Your task to perform on an android device: Search for Mexican restaurants on Maps Image 0: 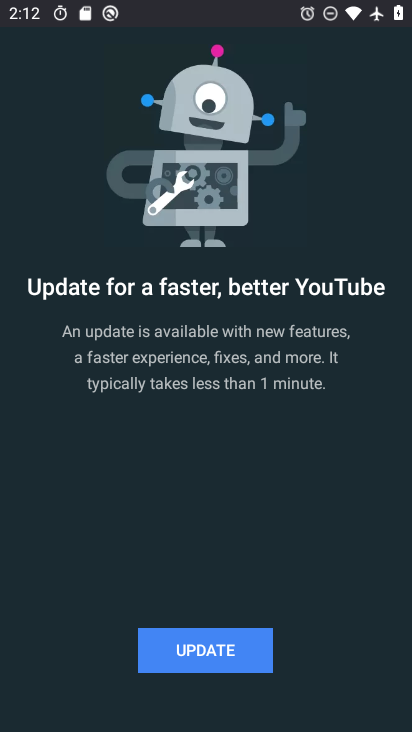
Step 0: press home button
Your task to perform on an android device: Search for Mexican restaurants on Maps Image 1: 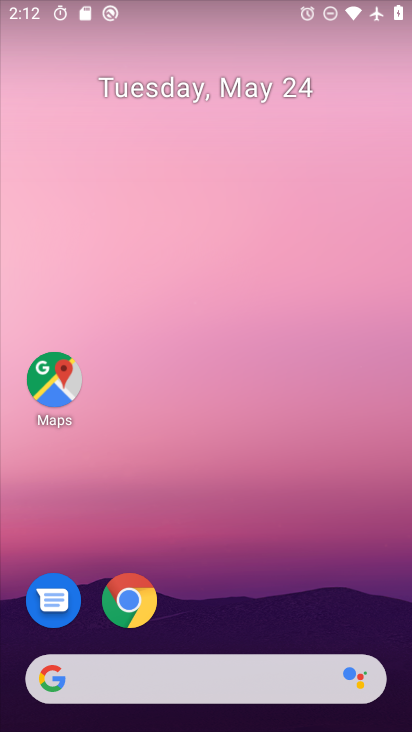
Step 1: click (59, 379)
Your task to perform on an android device: Search for Mexican restaurants on Maps Image 2: 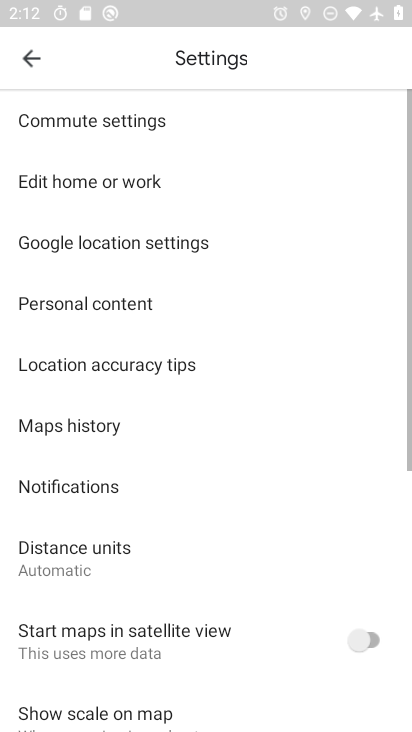
Step 2: click (39, 66)
Your task to perform on an android device: Search for Mexican restaurants on Maps Image 3: 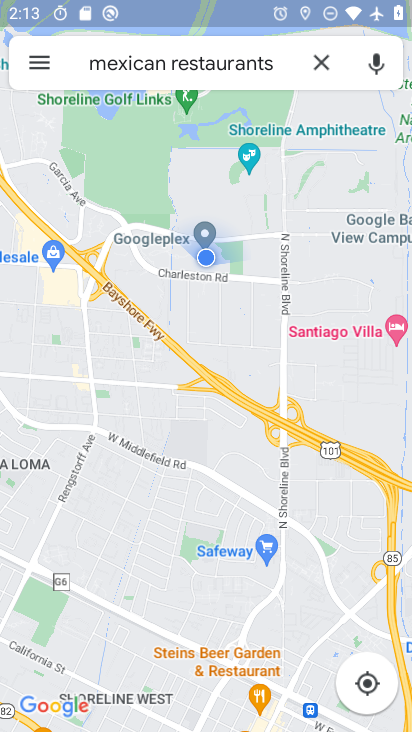
Step 3: click (293, 57)
Your task to perform on an android device: Search for Mexican restaurants on Maps Image 4: 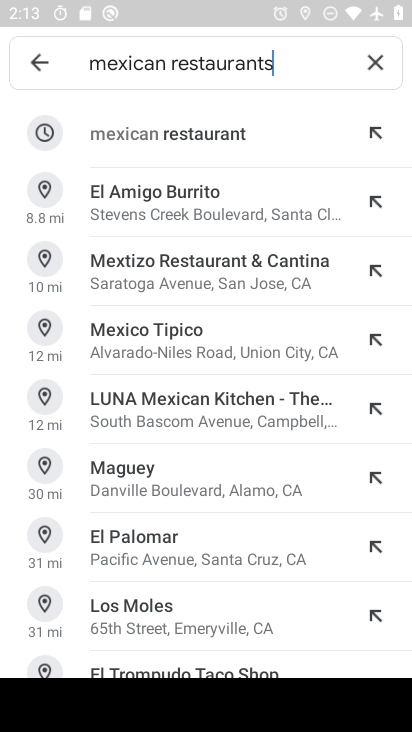
Step 4: press enter
Your task to perform on an android device: Search for Mexican restaurants on Maps Image 5: 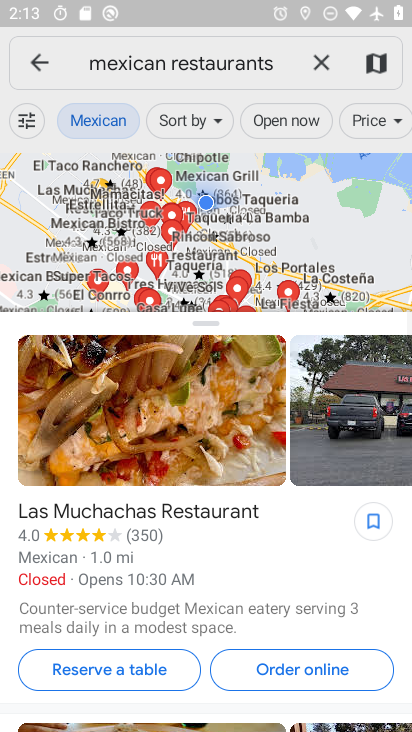
Step 5: task complete